Your task to perform on an android device: open chrome and create a bookmark for the current page Image 0: 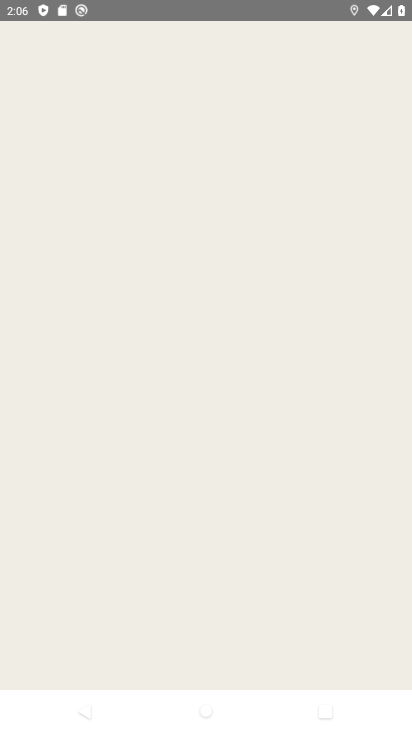
Step 0: drag from (221, 626) to (223, 587)
Your task to perform on an android device: open chrome and create a bookmark for the current page Image 1: 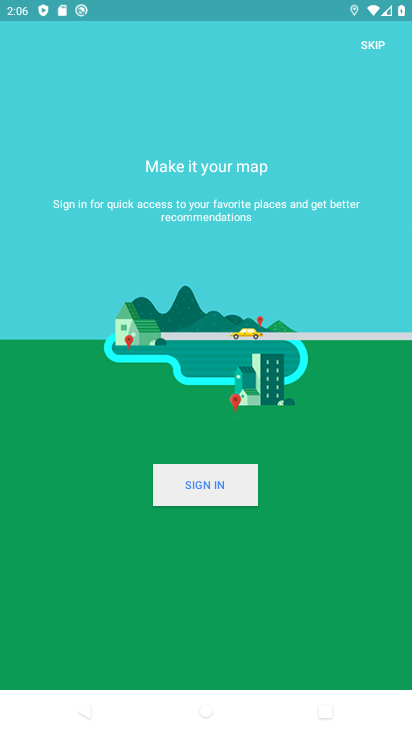
Step 1: press home button
Your task to perform on an android device: open chrome and create a bookmark for the current page Image 2: 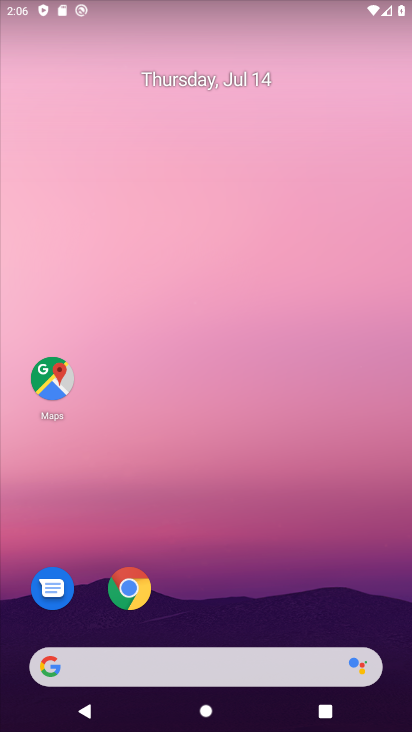
Step 2: click (137, 583)
Your task to perform on an android device: open chrome and create a bookmark for the current page Image 3: 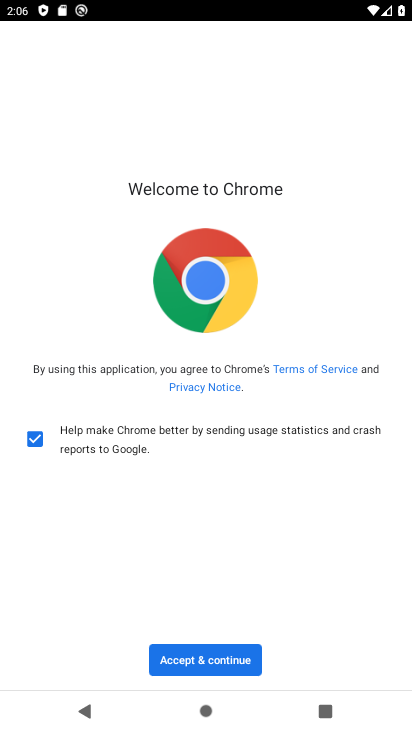
Step 3: click (226, 663)
Your task to perform on an android device: open chrome and create a bookmark for the current page Image 4: 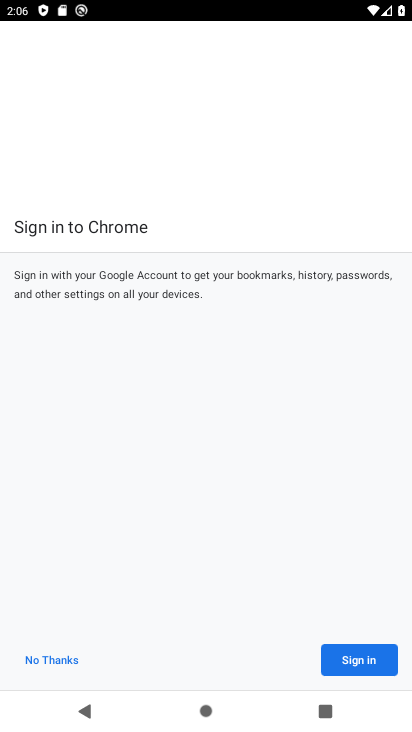
Step 4: click (339, 668)
Your task to perform on an android device: open chrome and create a bookmark for the current page Image 5: 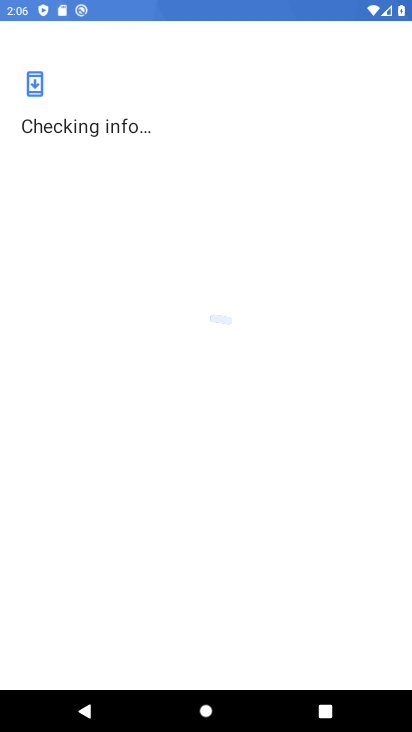
Step 5: task complete